Your task to perform on an android device: Do I have any events today? Image 0: 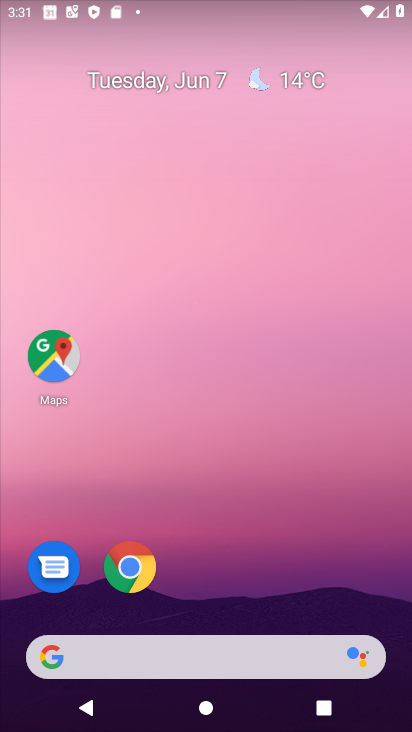
Step 0: drag from (262, 542) to (240, 104)
Your task to perform on an android device: Do I have any events today? Image 1: 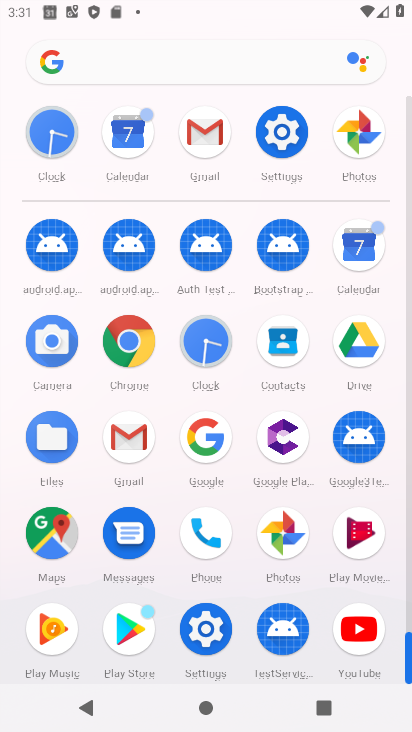
Step 1: click (350, 243)
Your task to perform on an android device: Do I have any events today? Image 2: 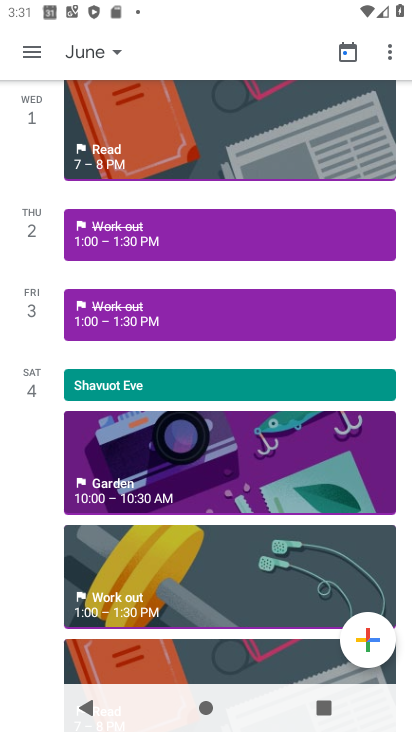
Step 2: drag from (217, 276) to (227, 459)
Your task to perform on an android device: Do I have any events today? Image 3: 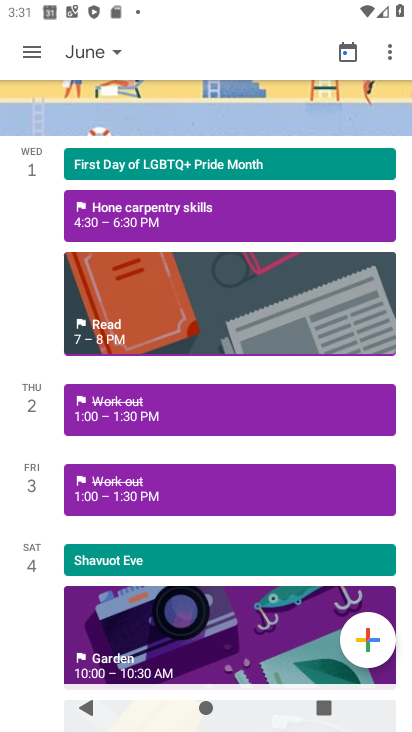
Step 3: drag from (236, 305) to (247, 368)
Your task to perform on an android device: Do I have any events today? Image 4: 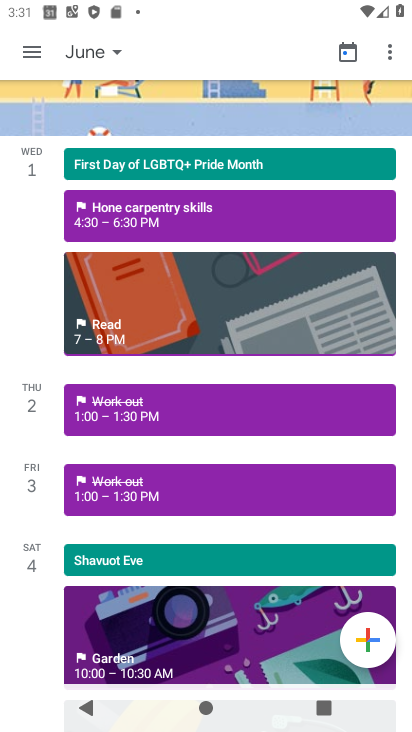
Step 4: click (124, 51)
Your task to perform on an android device: Do I have any events today? Image 5: 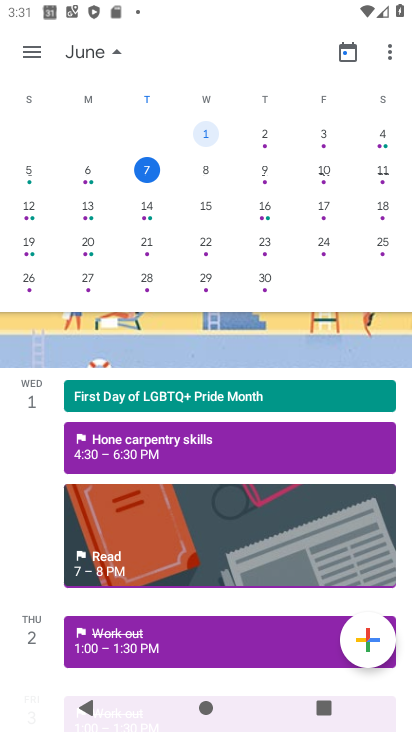
Step 5: click (160, 163)
Your task to perform on an android device: Do I have any events today? Image 6: 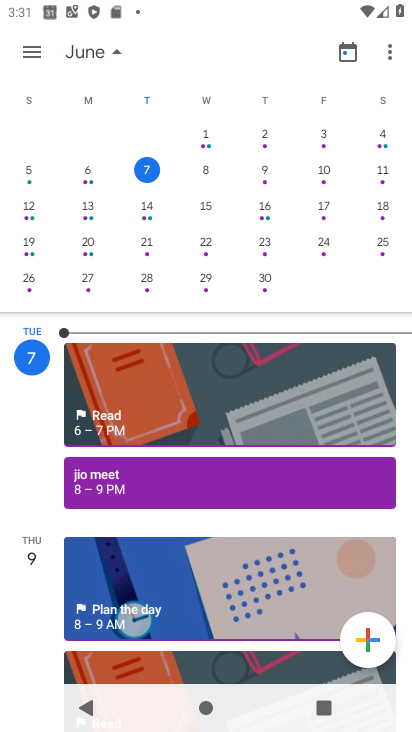
Step 6: click (154, 176)
Your task to perform on an android device: Do I have any events today? Image 7: 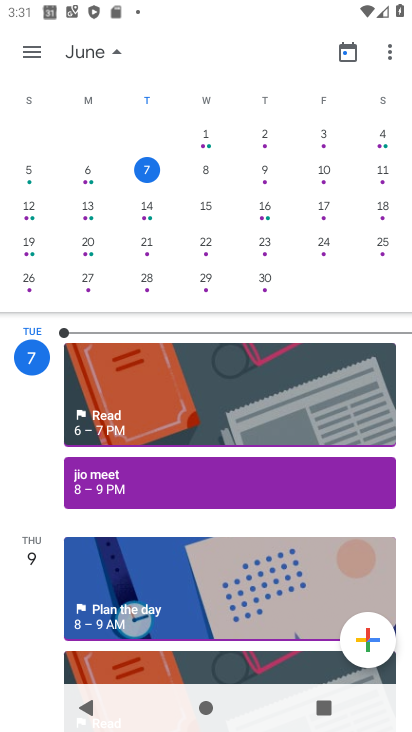
Step 7: task complete